Your task to perform on an android device: Do I have any events tomorrow? Image 0: 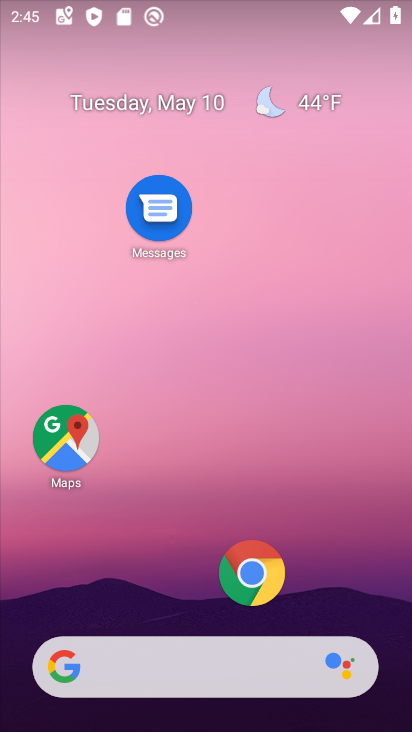
Step 0: click (248, 121)
Your task to perform on an android device: Do I have any events tomorrow? Image 1: 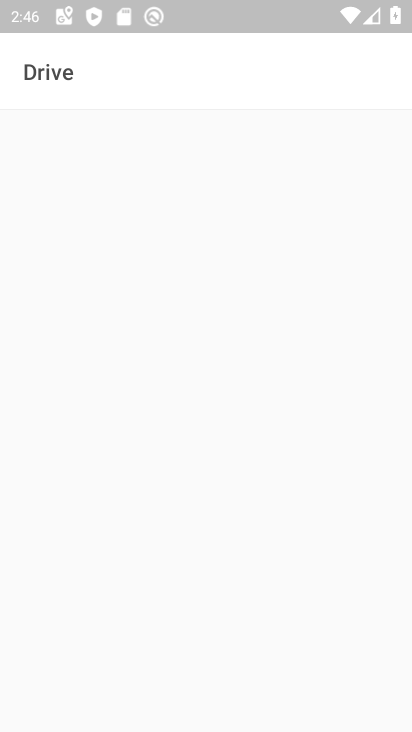
Step 1: press home button
Your task to perform on an android device: Do I have any events tomorrow? Image 2: 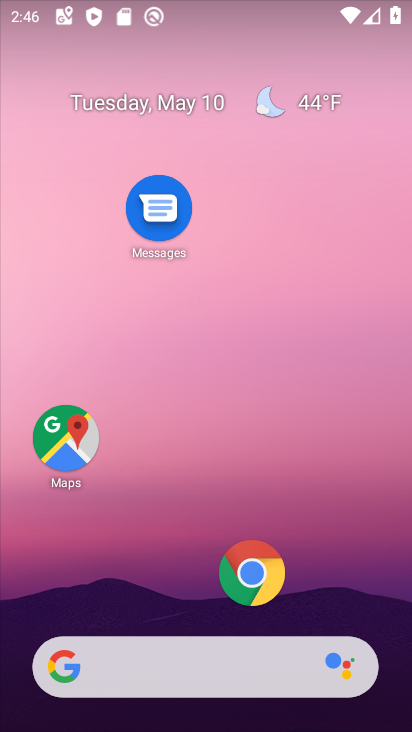
Step 2: drag from (174, 599) to (283, 173)
Your task to perform on an android device: Do I have any events tomorrow? Image 3: 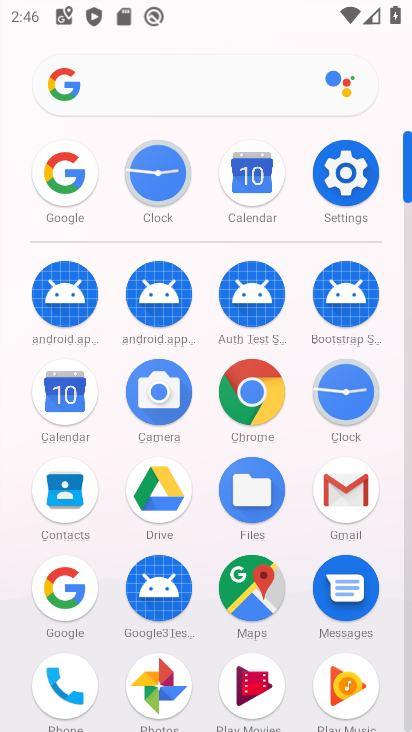
Step 3: click (238, 196)
Your task to perform on an android device: Do I have any events tomorrow? Image 4: 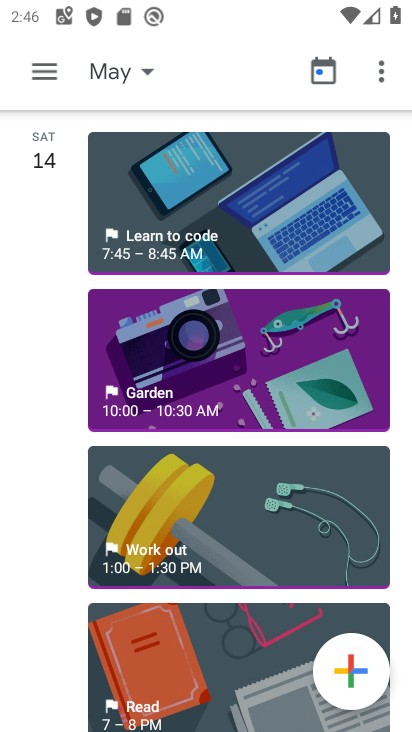
Step 4: click (132, 80)
Your task to perform on an android device: Do I have any events tomorrow? Image 5: 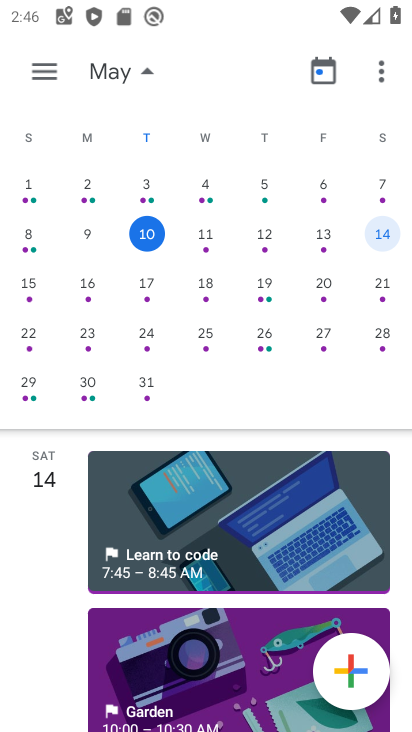
Step 5: click (196, 238)
Your task to perform on an android device: Do I have any events tomorrow? Image 6: 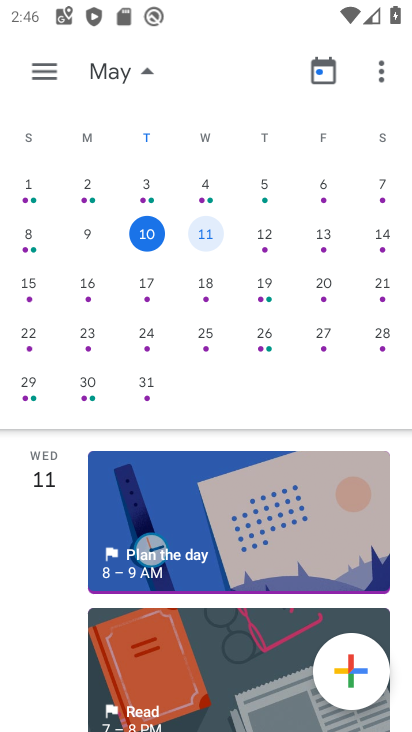
Step 6: task complete